Your task to perform on an android device: Open network settings Image 0: 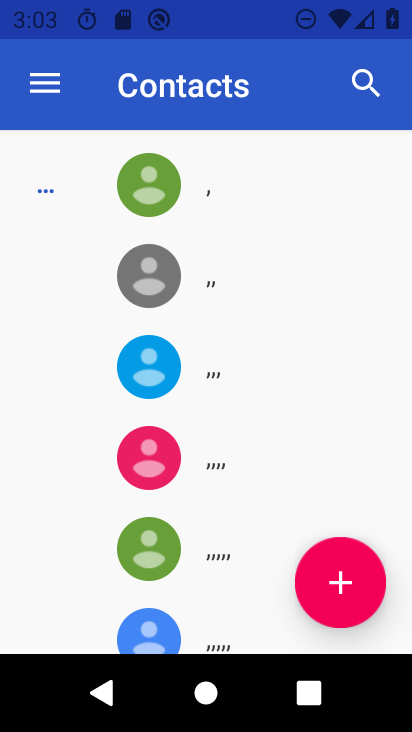
Step 0: press home button
Your task to perform on an android device: Open network settings Image 1: 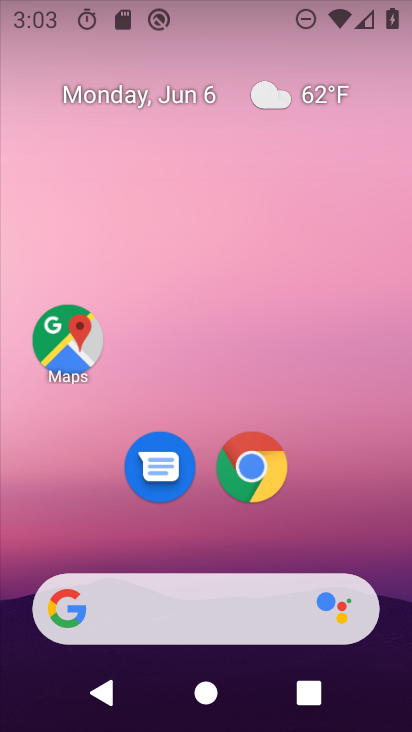
Step 1: drag from (205, 557) to (257, 72)
Your task to perform on an android device: Open network settings Image 2: 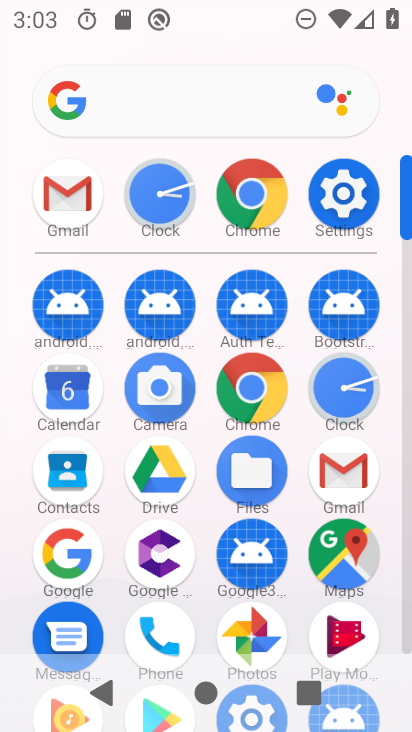
Step 2: click (330, 199)
Your task to perform on an android device: Open network settings Image 3: 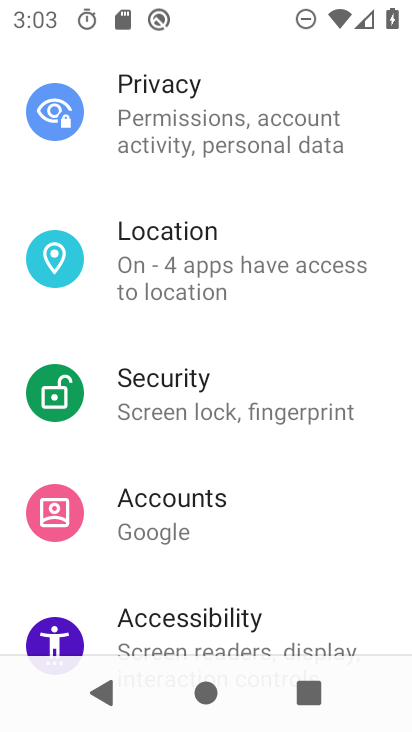
Step 3: drag from (178, 222) to (159, 562)
Your task to perform on an android device: Open network settings Image 4: 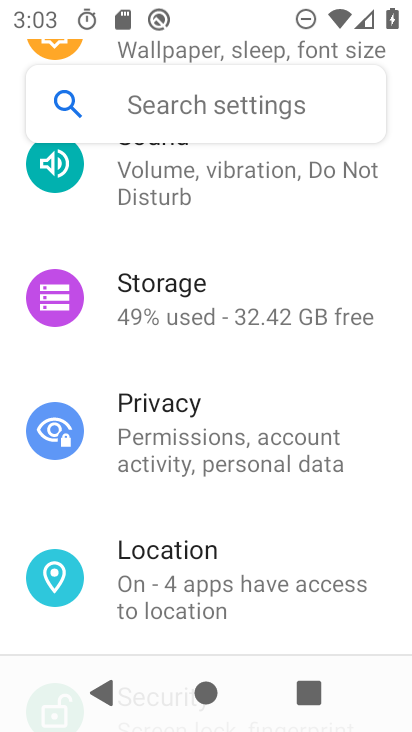
Step 4: drag from (228, 266) to (202, 598)
Your task to perform on an android device: Open network settings Image 5: 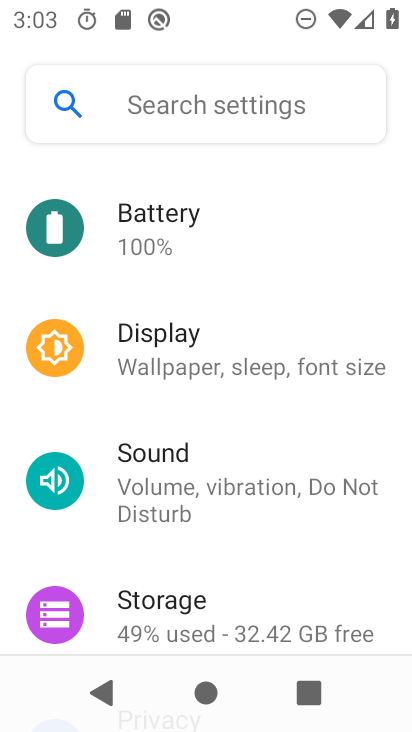
Step 5: drag from (236, 290) to (203, 663)
Your task to perform on an android device: Open network settings Image 6: 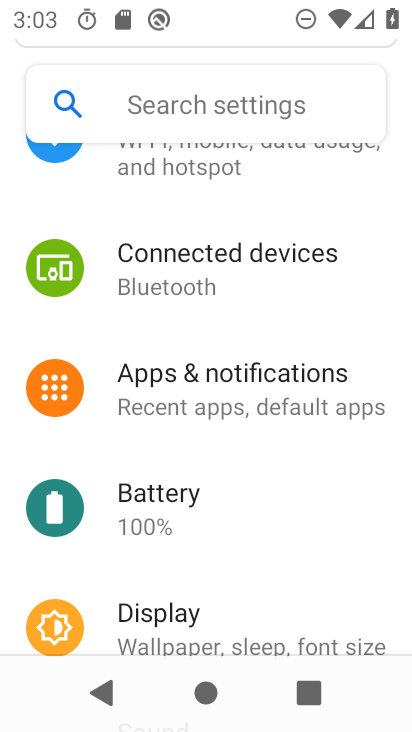
Step 6: drag from (261, 234) to (226, 497)
Your task to perform on an android device: Open network settings Image 7: 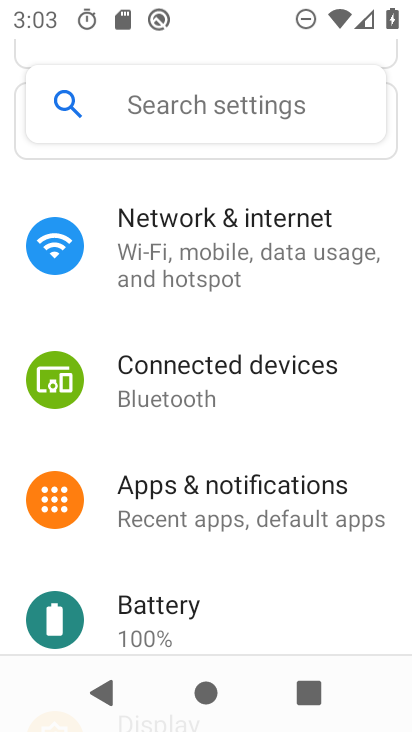
Step 7: click (182, 240)
Your task to perform on an android device: Open network settings Image 8: 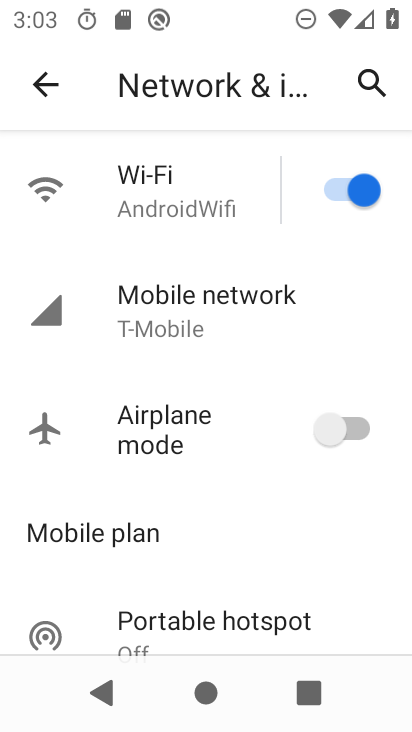
Step 8: drag from (181, 544) to (252, 240)
Your task to perform on an android device: Open network settings Image 9: 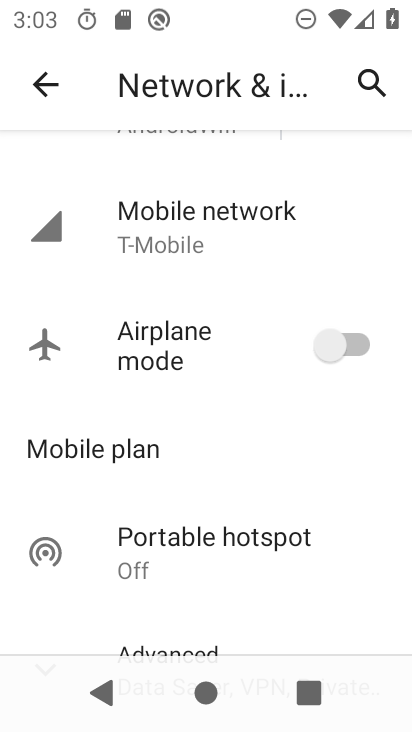
Step 9: drag from (200, 415) to (182, 534)
Your task to perform on an android device: Open network settings Image 10: 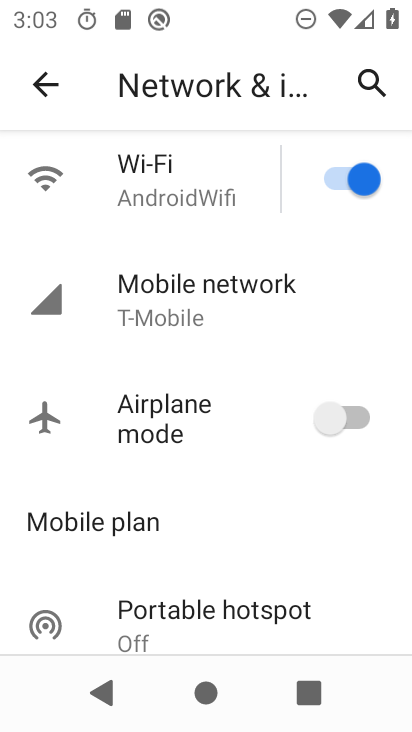
Step 10: click (192, 308)
Your task to perform on an android device: Open network settings Image 11: 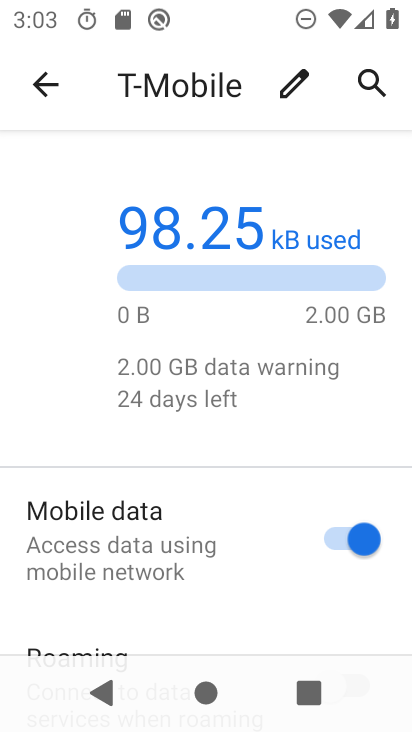
Step 11: task complete